Your task to perform on an android device: check storage Image 0: 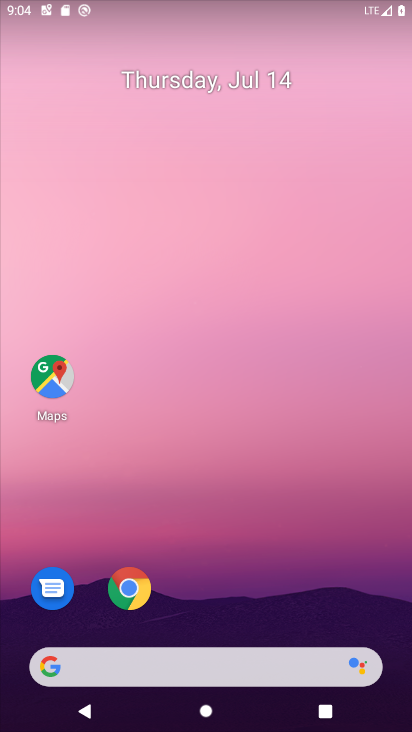
Step 0: drag from (240, 583) to (289, 65)
Your task to perform on an android device: check storage Image 1: 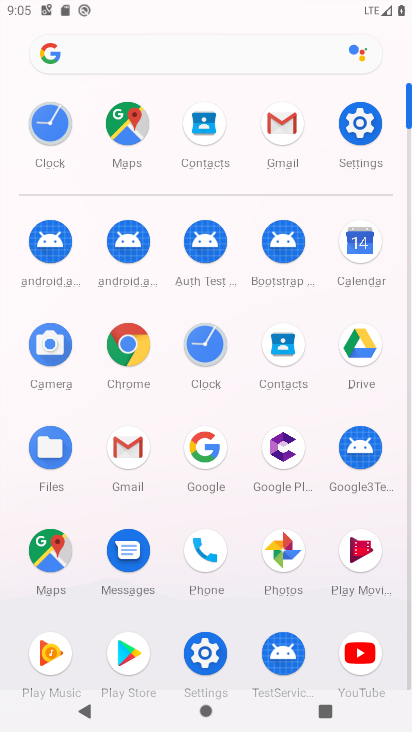
Step 1: click (194, 658)
Your task to perform on an android device: check storage Image 2: 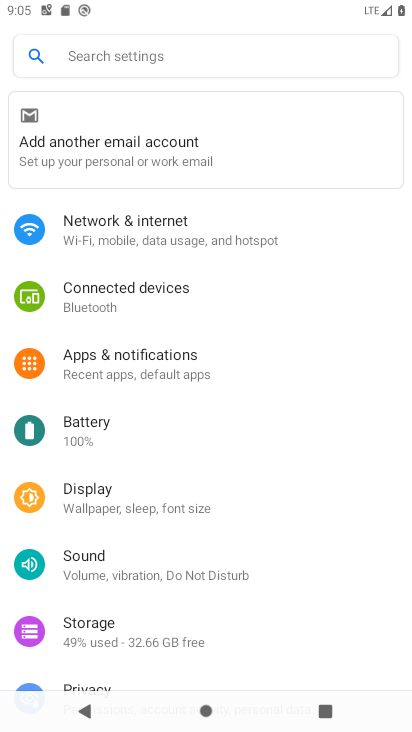
Step 2: click (94, 638)
Your task to perform on an android device: check storage Image 3: 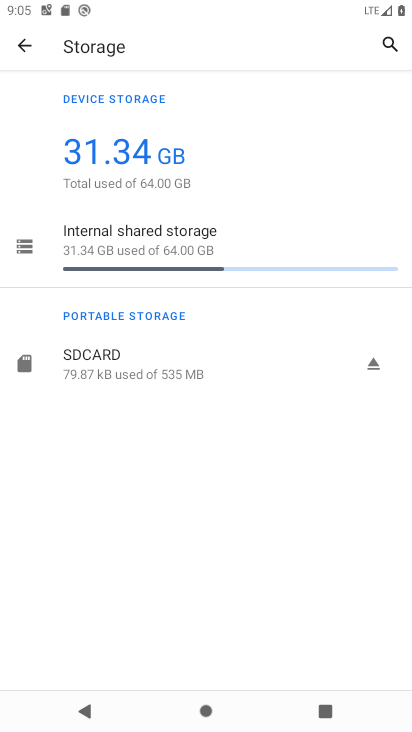
Step 3: task complete